Your task to perform on an android device: Open Yahoo.com Image 0: 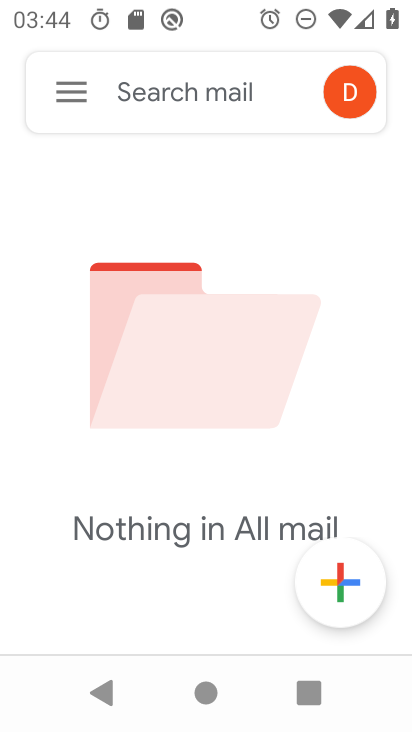
Step 0: press home button
Your task to perform on an android device: Open Yahoo.com Image 1: 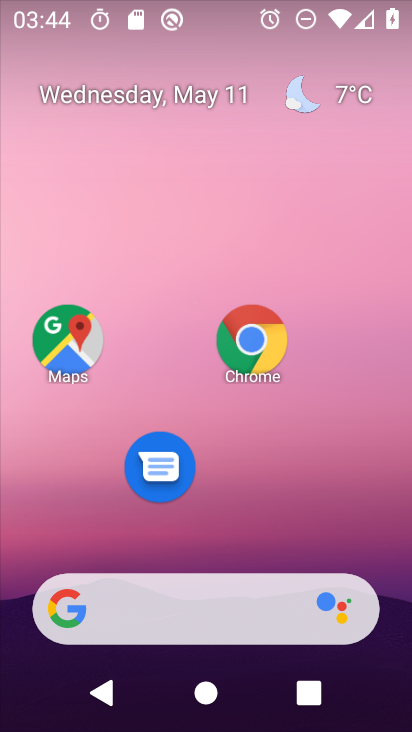
Step 1: drag from (177, 629) to (281, 157)
Your task to perform on an android device: Open Yahoo.com Image 2: 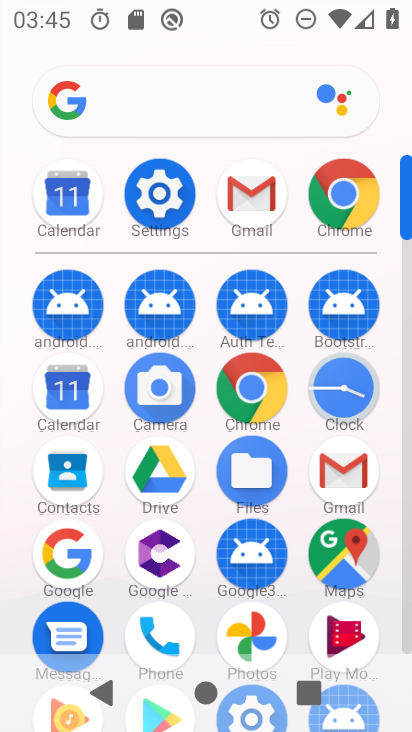
Step 2: click (344, 200)
Your task to perform on an android device: Open Yahoo.com Image 3: 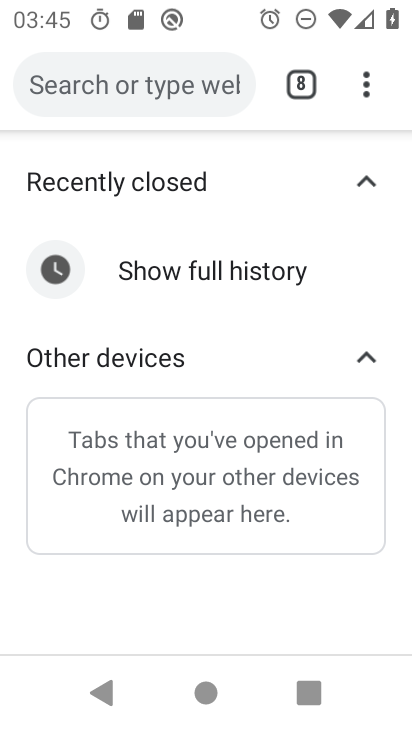
Step 3: drag from (367, 88) to (252, 170)
Your task to perform on an android device: Open Yahoo.com Image 4: 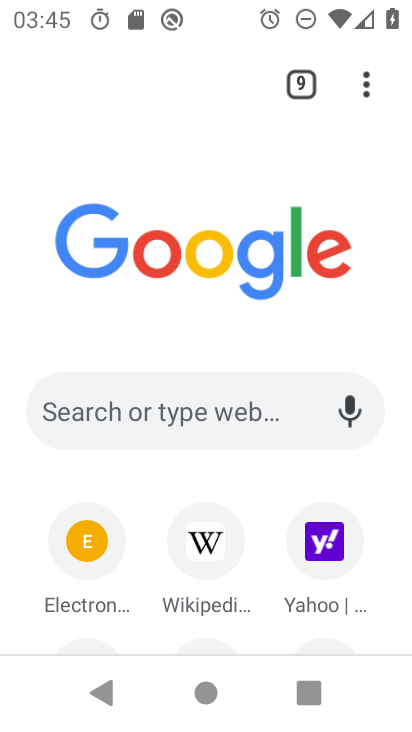
Step 4: drag from (252, 485) to (282, 167)
Your task to perform on an android device: Open Yahoo.com Image 5: 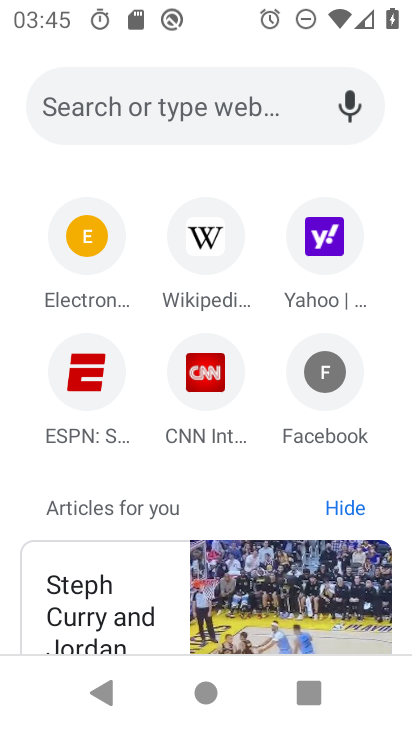
Step 5: click (324, 247)
Your task to perform on an android device: Open Yahoo.com Image 6: 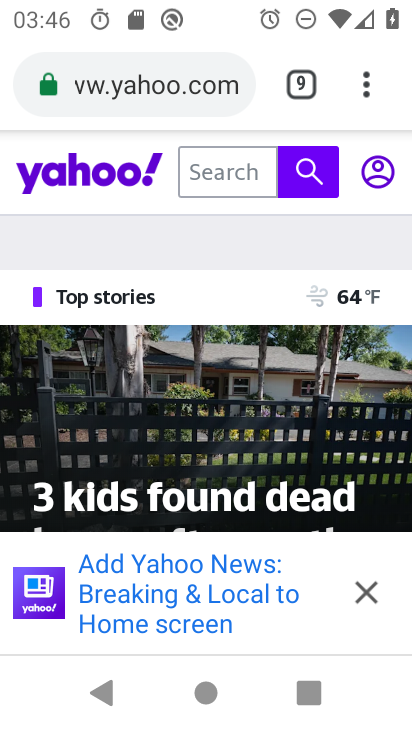
Step 6: task complete